Your task to perform on an android device: Show me the alarms in the clock app Image 0: 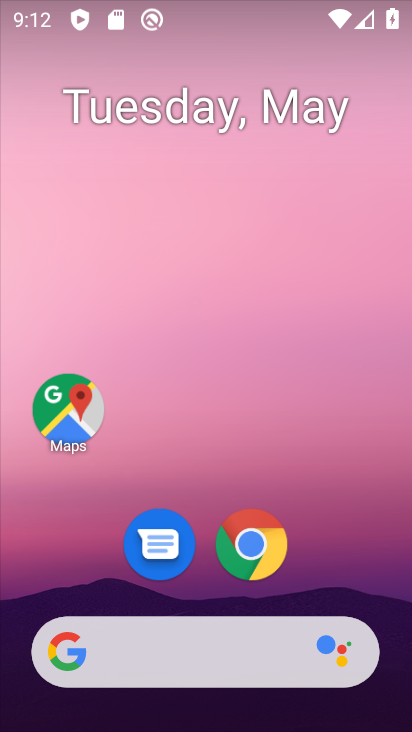
Step 0: drag from (309, 569) to (323, 270)
Your task to perform on an android device: Show me the alarms in the clock app Image 1: 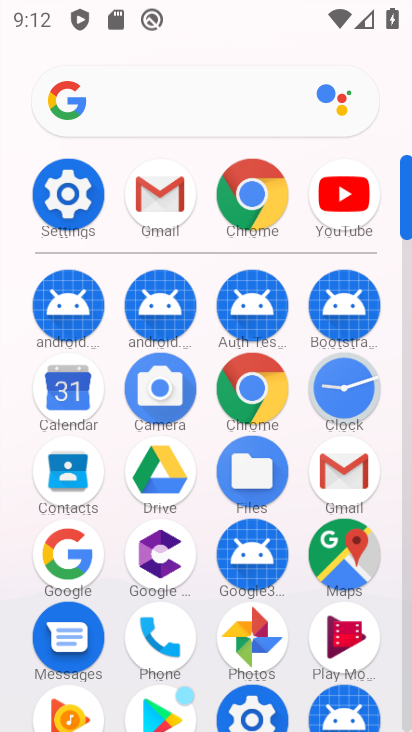
Step 1: drag from (219, 539) to (211, 321)
Your task to perform on an android device: Show me the alarms in the clock app Image 2: 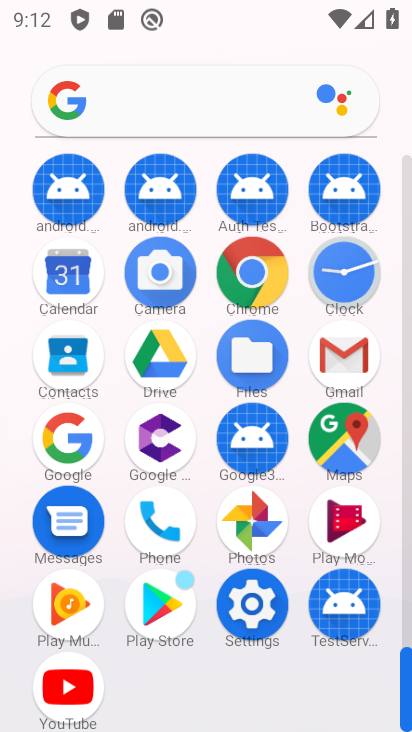
Step 2: click (349, 280)
Your task to perform on an android device: Show me the alarms in the clock app Image 3: 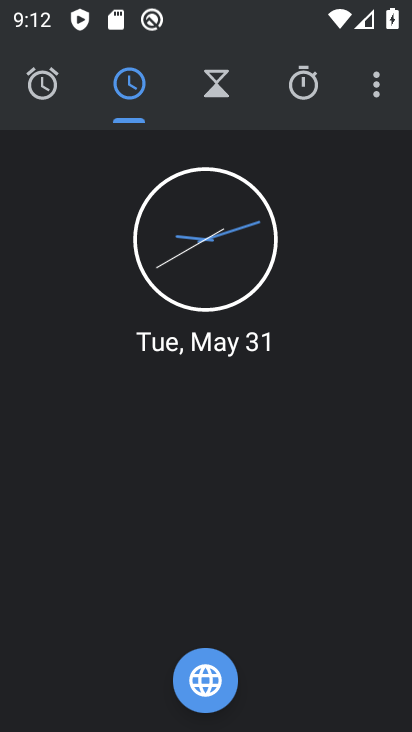
Step 3: click (57, 87)
Your task to perform on an android device: Show me the alarms in the clock app Image 4: 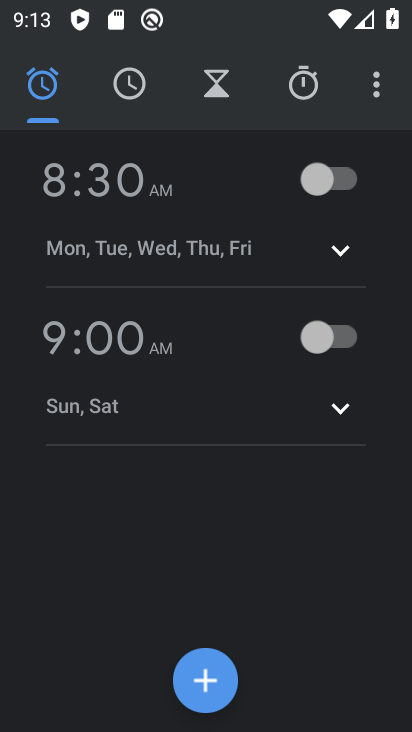
Step 4: task complete